Your task to perform on an android device: What is the news today? Image 0: 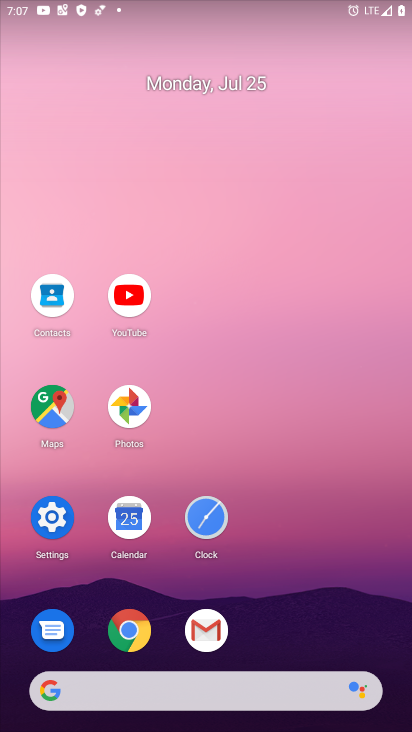
Step 0: drag from (24, 189) to (355, 214)
Your task to perform on an android device: What is the news today? Image 1: 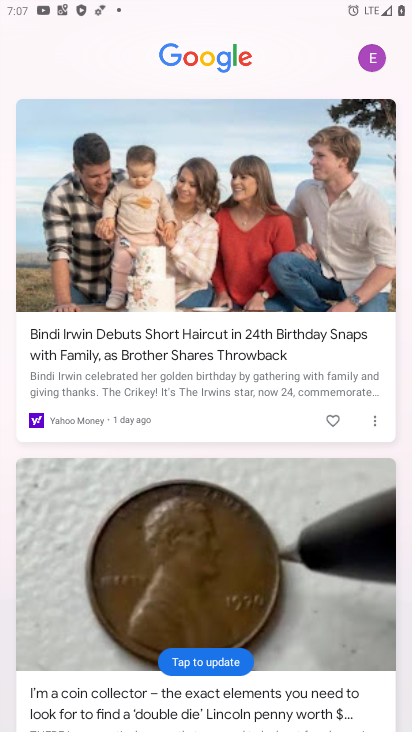
Step 1: task complete